Your task to perform on an android device: toggle location history Image 0: 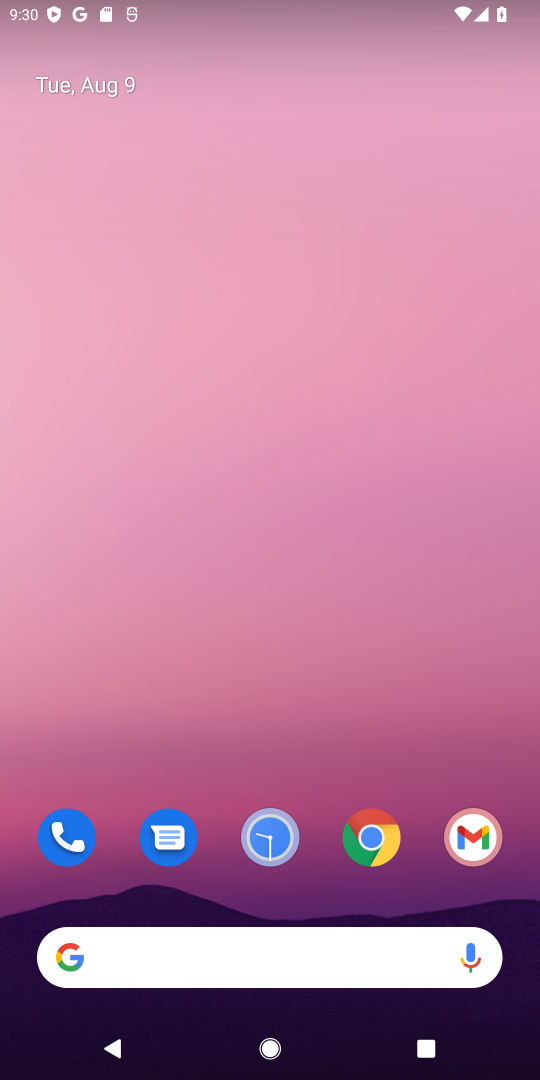
Step 0: drag from (308, 910) to (222, 178)
Your task to perform on an android device: toggle location history Image 1: 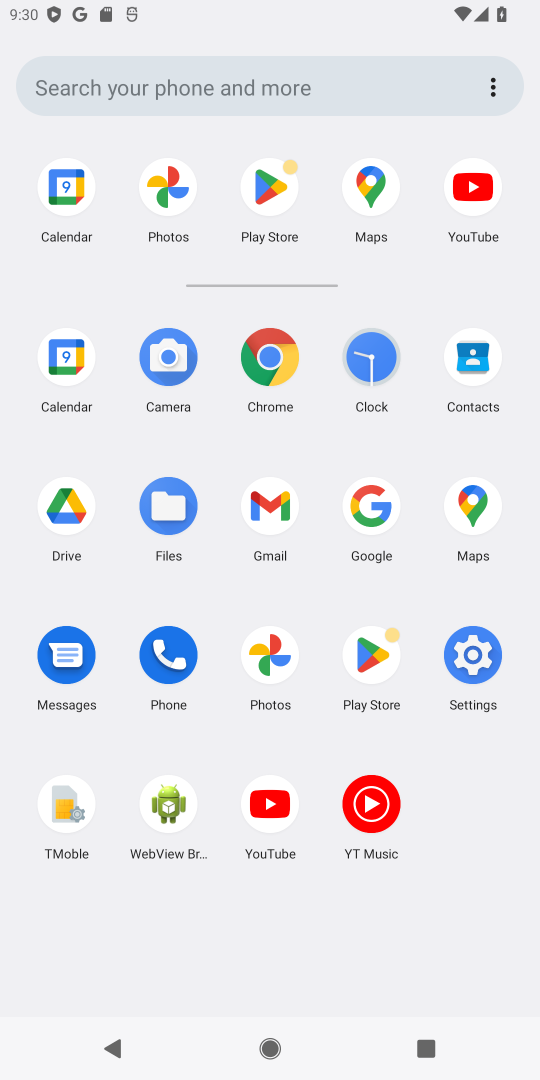
Step 1: click (472, 655)
Your task to perform on an android device: toggle location history Image 2: 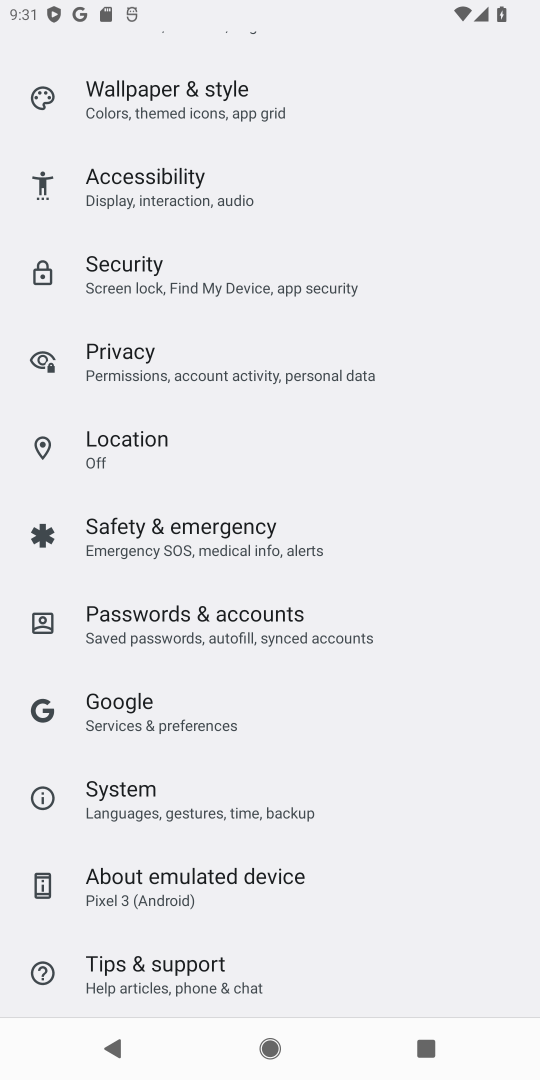
Step 2: click (125, 441)
Your task to perform on an android device: toggle location history Image 3: 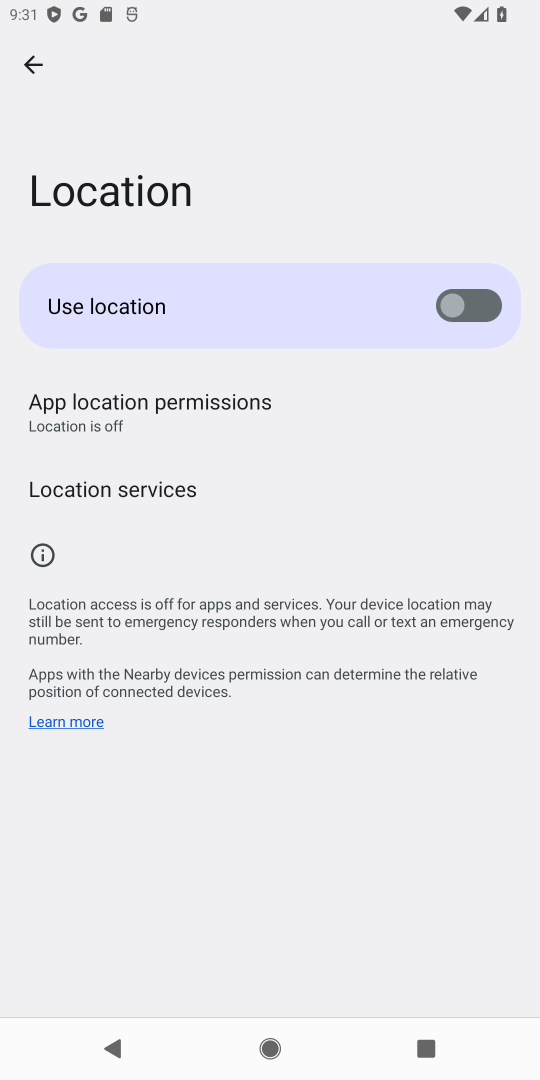
Step 3: click (102, 485)
Your task to perform on an android device: toggle location history Image 4: 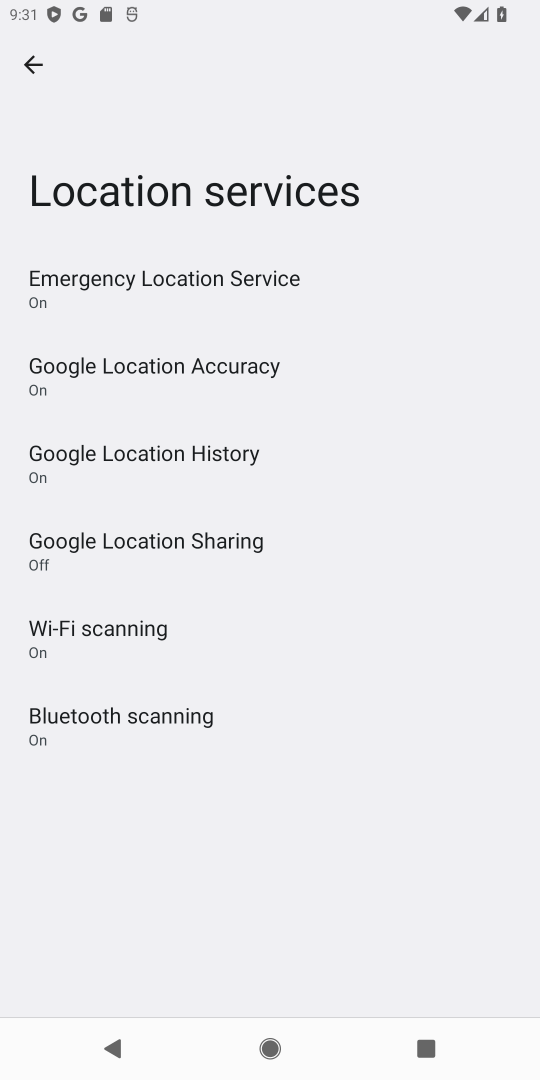
Step 4: click (196, 450)
Your task to perform on an android device: toggle location history Image 5: 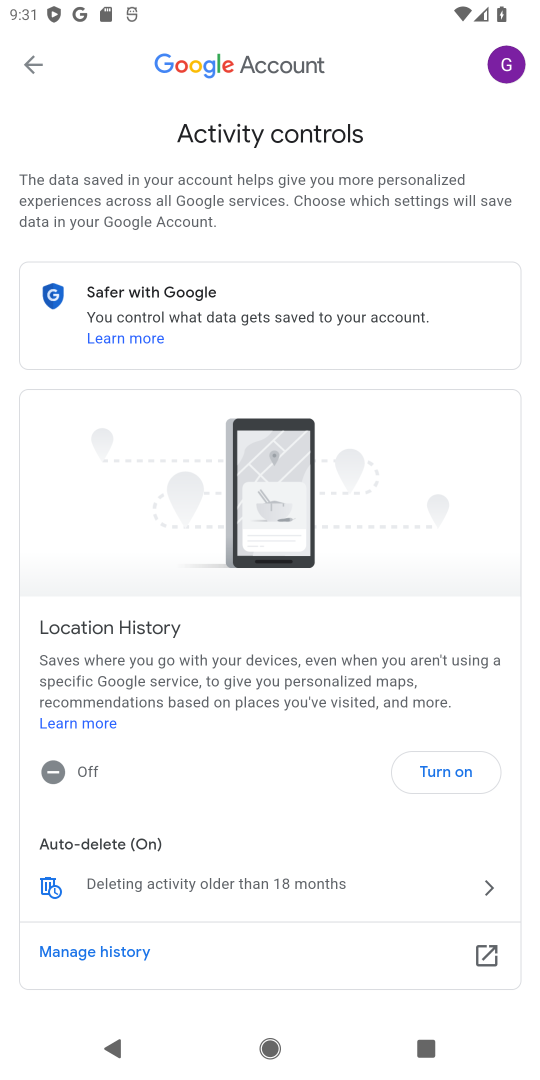
Step 5: click (451, 767)
Your task to perform on an android device: toggle location history Image 6: 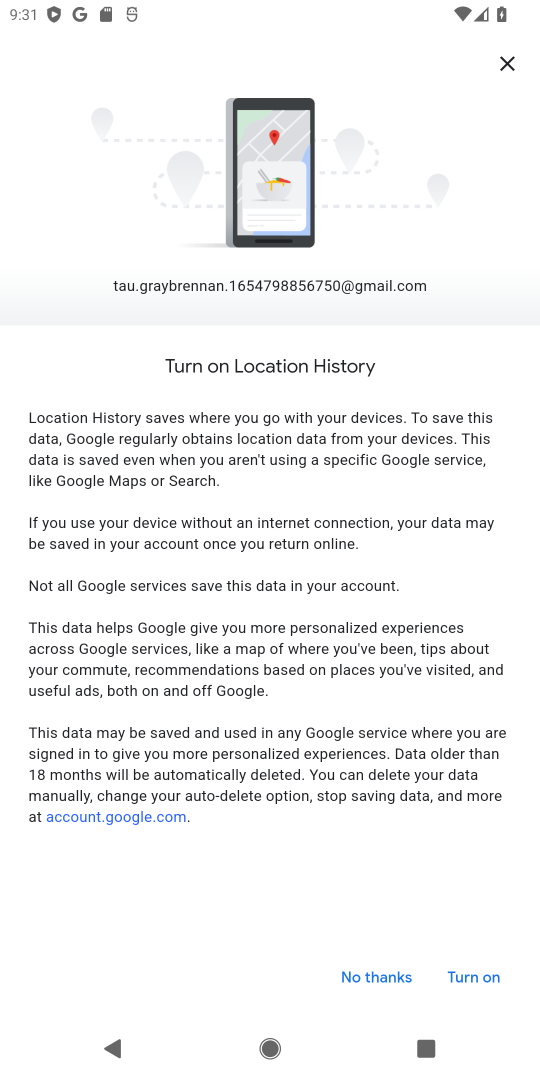
Step 6: click (396, 608)
Your task to perform on an android device: toggle location history Image 7: 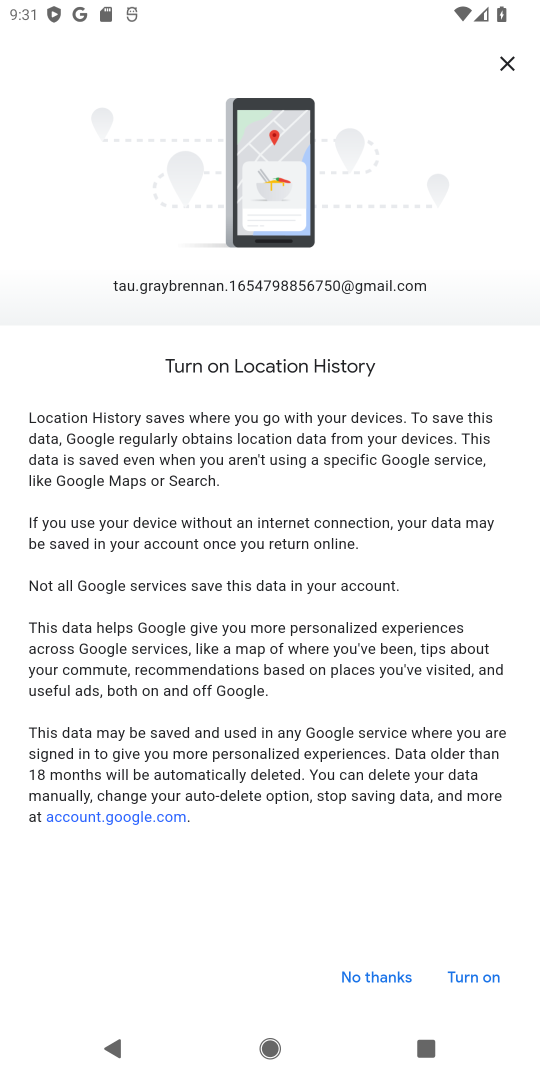
Step 7: click (477, 970)
Your task to perform on an android device: toggle location history Image 8: 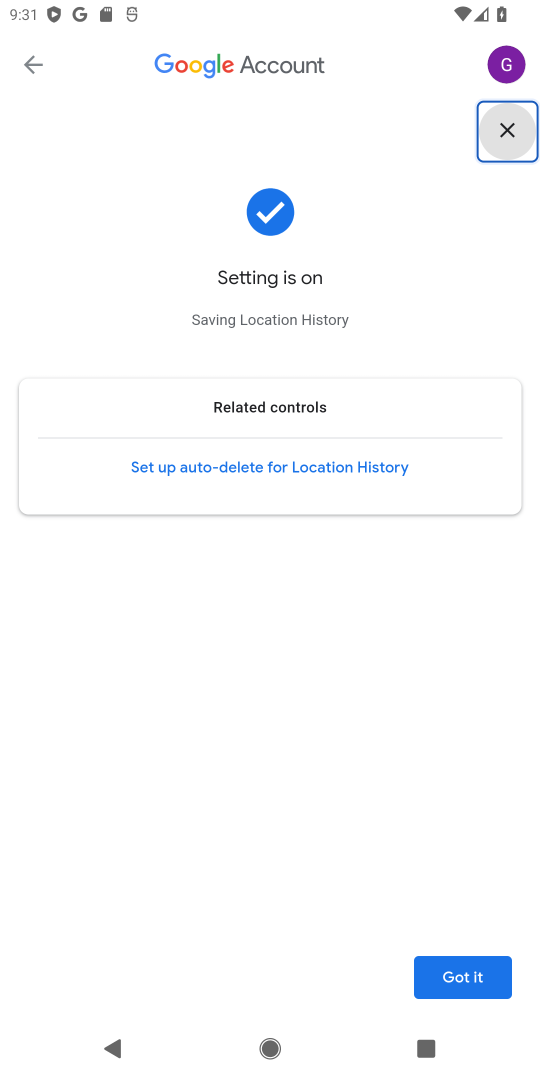
Step 8: click (472, 978)
Your task to perform on an android device: toggle location history Image 9: 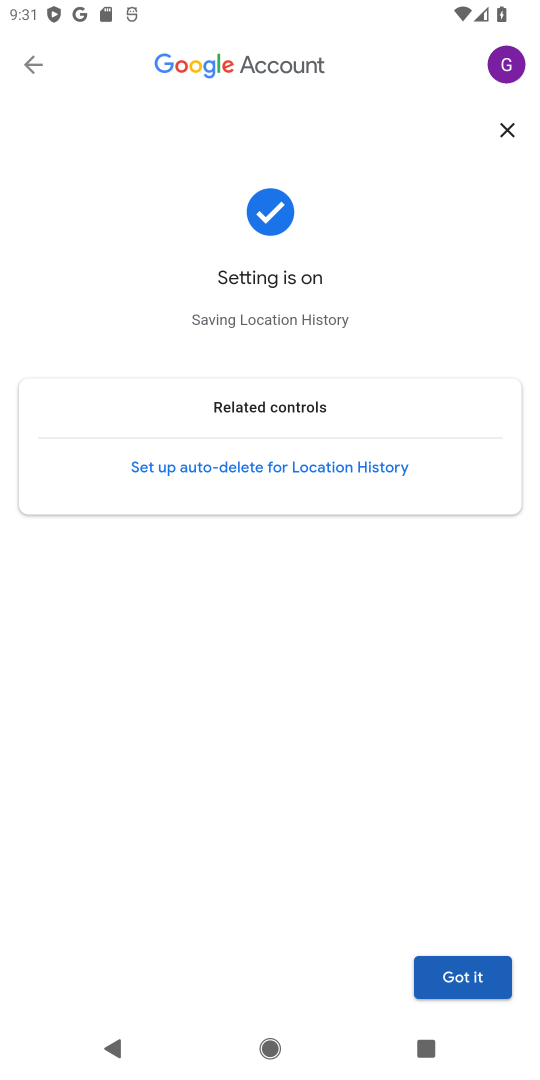
Step 9: click (470, 984)
Your task to perform on an android device: toggle location history Image 10: 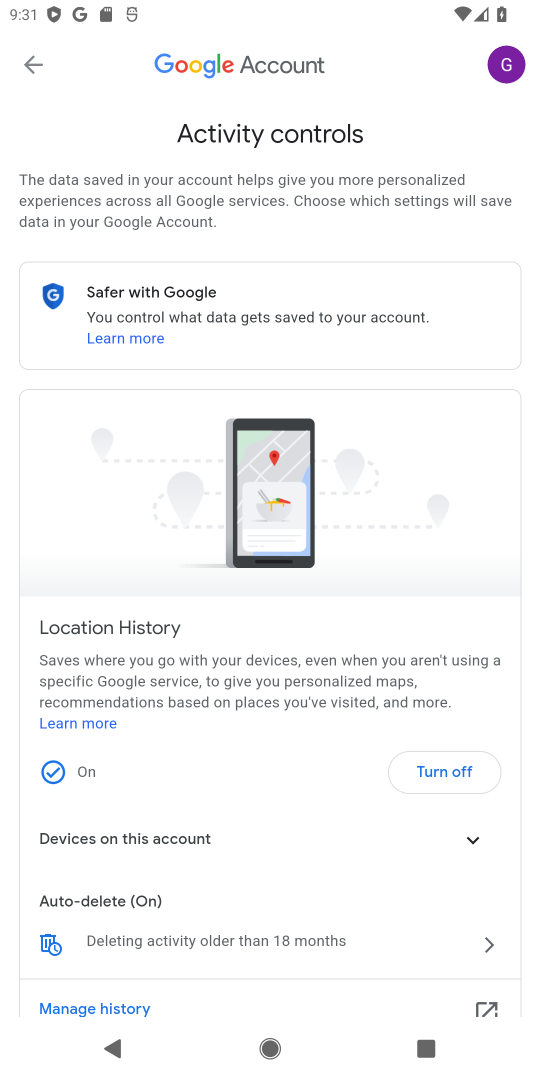
Step 10: task complete